Your task to perform on an android device: turn on wifi Image 0: 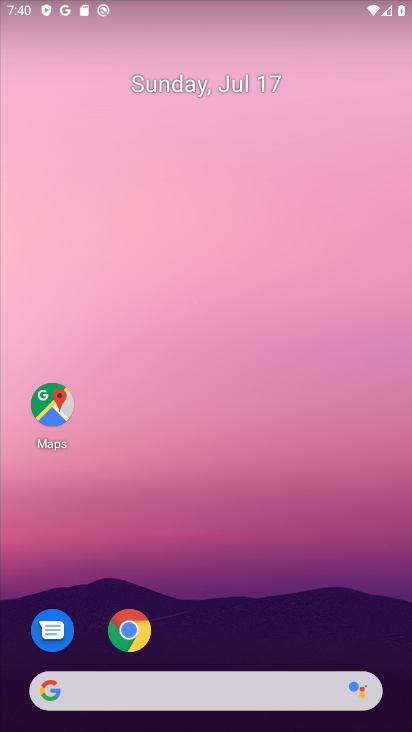
Step 0: click (211, 49)
Your task to perform on an android device: turn on wifi Image 1: 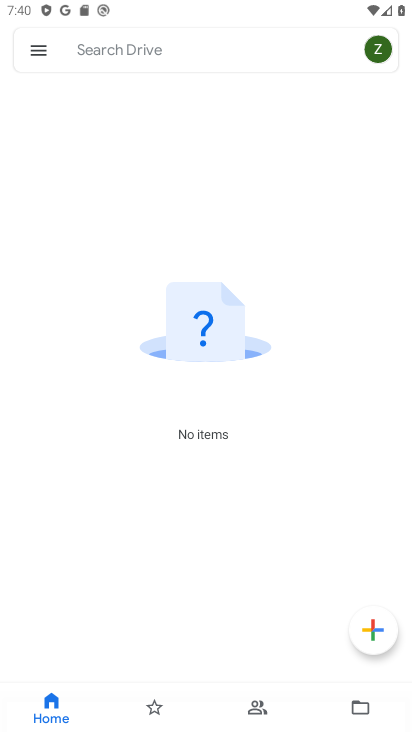
Step 1: press home button
Your task to perform on an android device: turn on wifi Image 2: 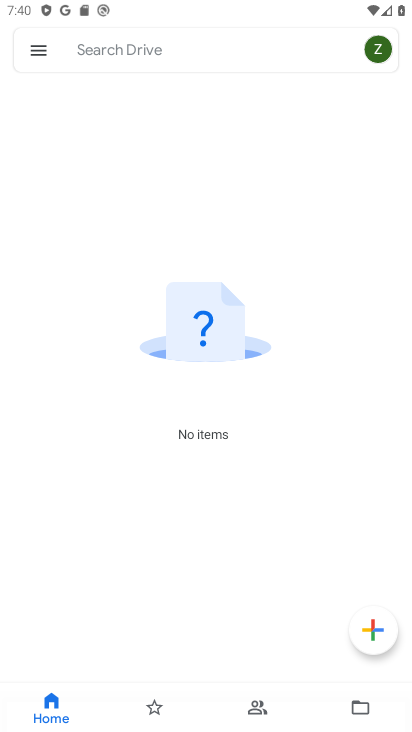
Step 2: drag from (211, 49) to (408, 554)
Your task to perform on an android device: turn on wifi Image 3: 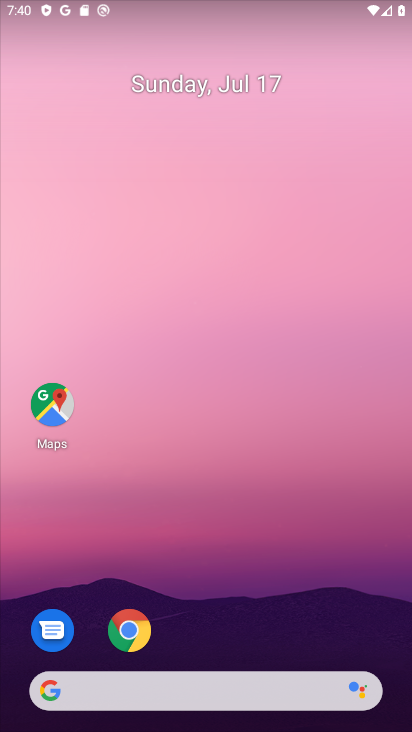
Step 3: drag from (209, 587) to (223, 206)
Your task to perform on an android device: turn on wifi Image 4: 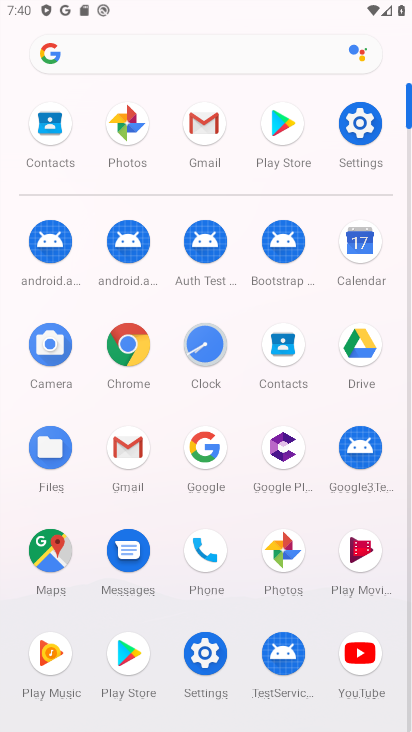
Step 4: click (356, 134)
Your task to perform on an android device: turn on wifi Image 5: 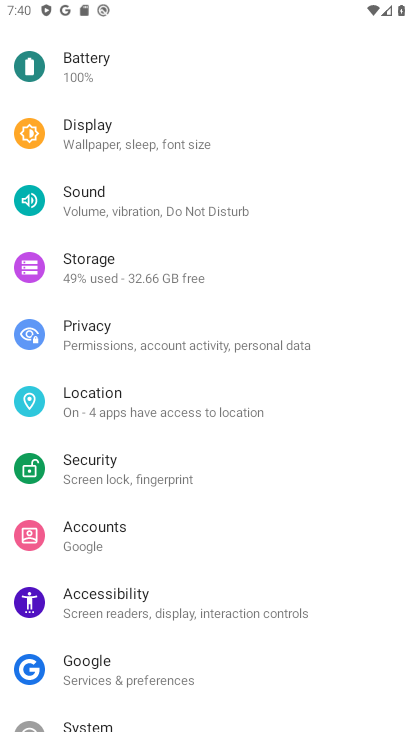
Step 5: drag from (260, 223) to (160, 633)
Your task to perform on an android device: turn on wifi Image 6: 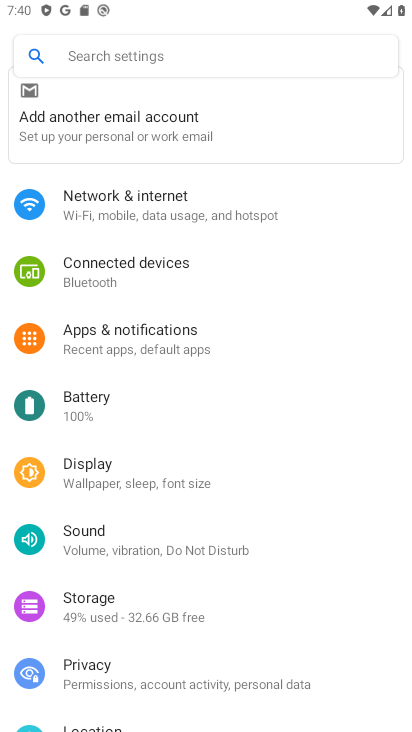
Step 6: click (174, 207)
Your task to perform on an android device: turn on wifi Image 7: 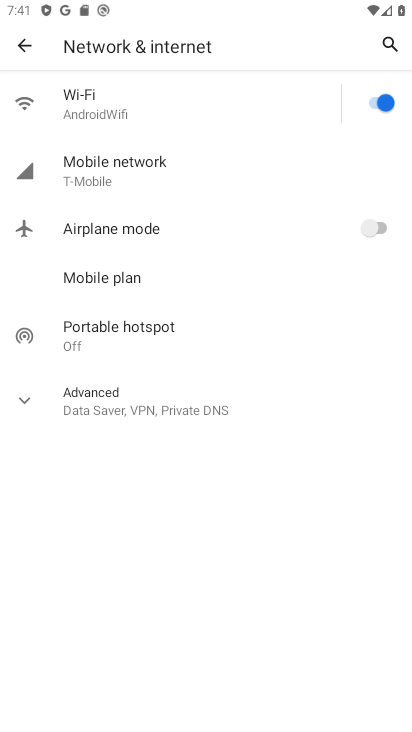
Step 7: task complete